Your task to perform on an android device: What's on my calendar today? Image 0: 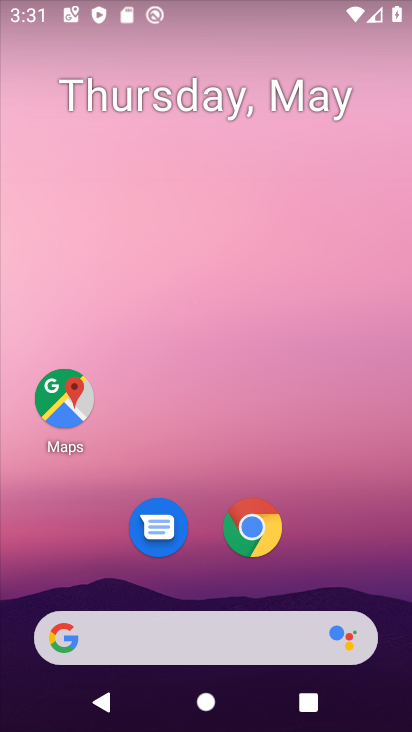
Step 0: drag from (385, 579) to (363, 99)
Your task to perform on an android device: What's on my calendar today? Image 1: 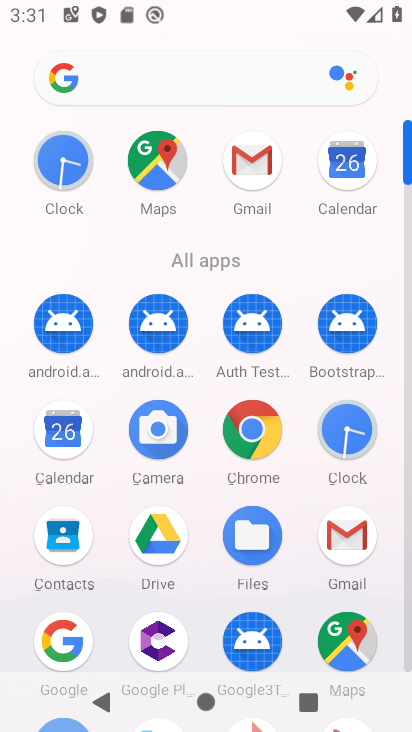
Step 1: click (56, 431)
Your task to perform on an android device: What's on my calendar today? Image 2: 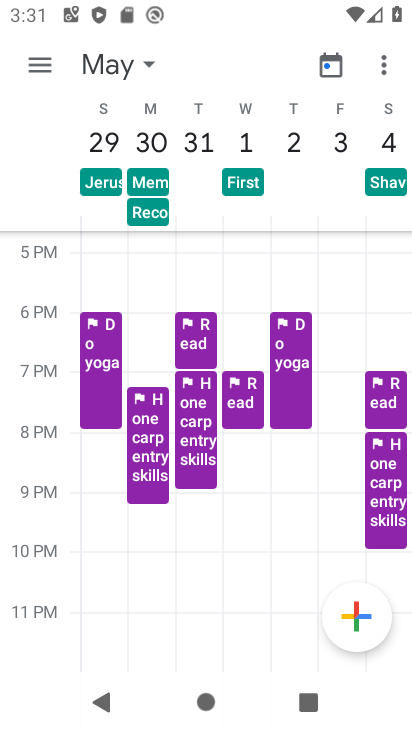
Step 2: click (33, 65)
Your task to perform on an android device: What's on my calendar today? Image 3: 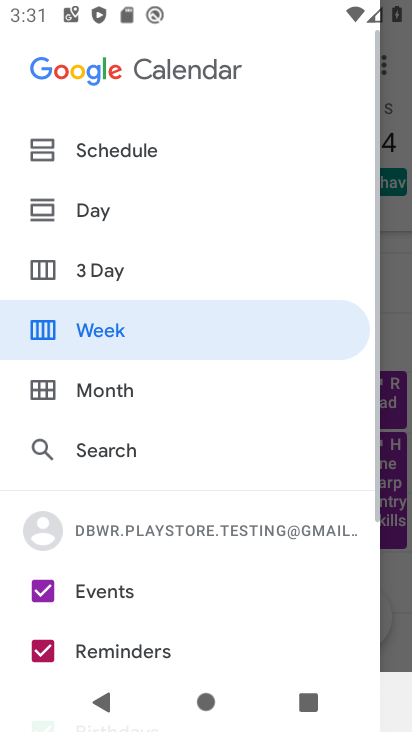
Step 3: click (89, 205)
Your task to perform on an android device: What's on my calendar today? Image 4: 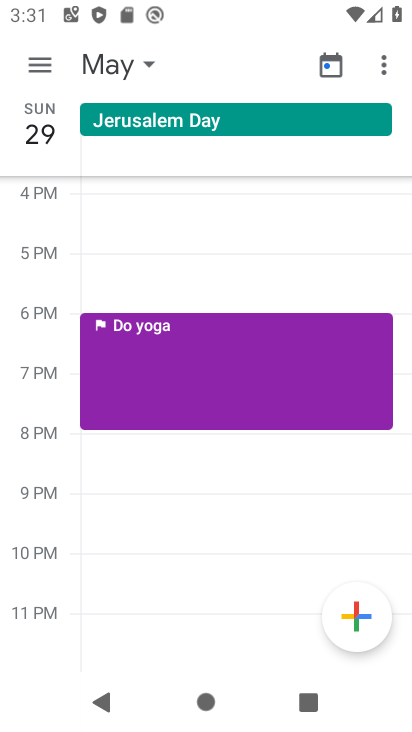
Step 4: click (137, 67)
Your task to perform on an android device: What's on my calendar today? Image 5: 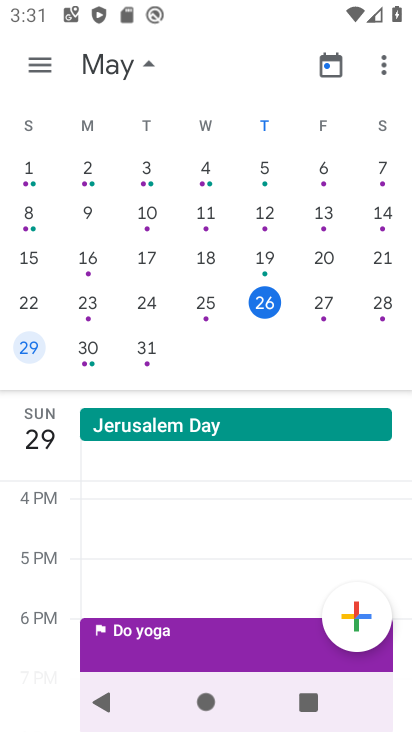
Step 5: click (258, 302)
Your task to perform on an android device: What's on my calendar today? Image 6: 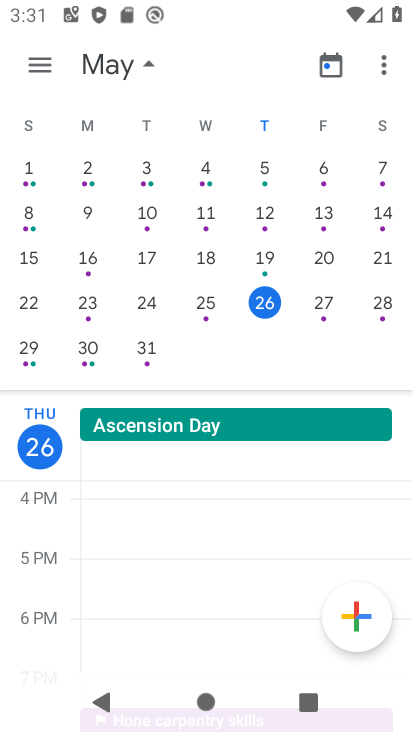
Step 6: task complete